Your task to perform on an android device: Open Yahoo.com Image 0: 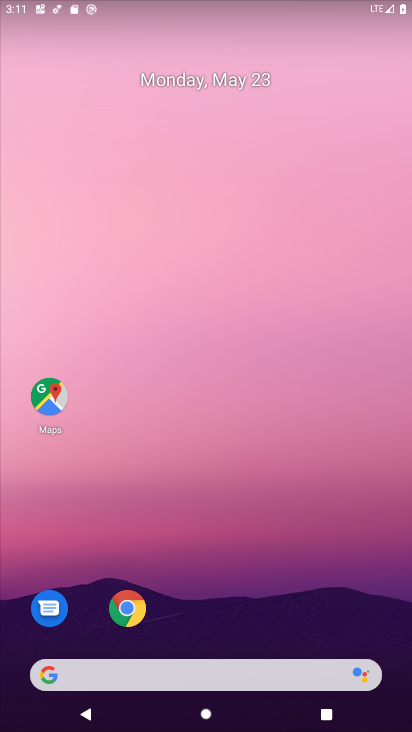
Step 0: click (132, 618)
Your task to perform on an android device: Open Yahoo.com Image 1: 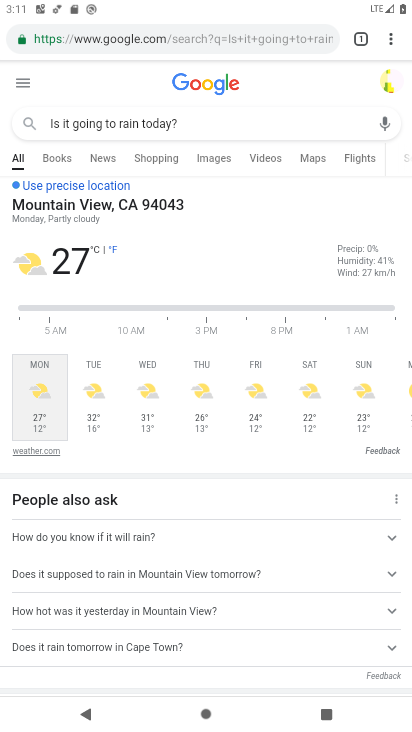
Step 1: click (275, 38)
Your task to perform on an android device: Open Yahoo.com Image 2: 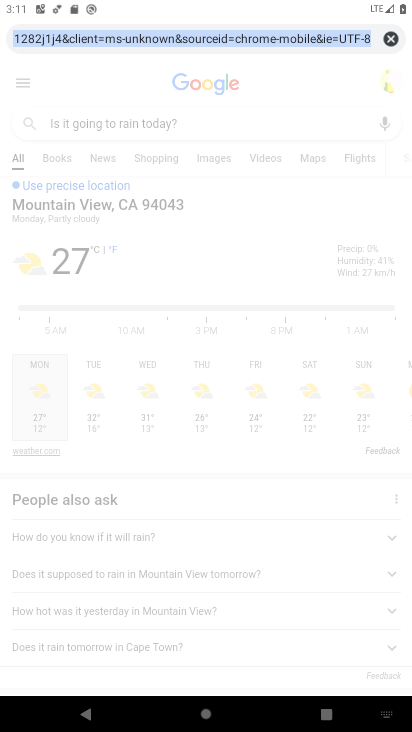
Step 2: type "yahoo.com"
Your task to perform on an android device: Open Yahoo.com Image 3: 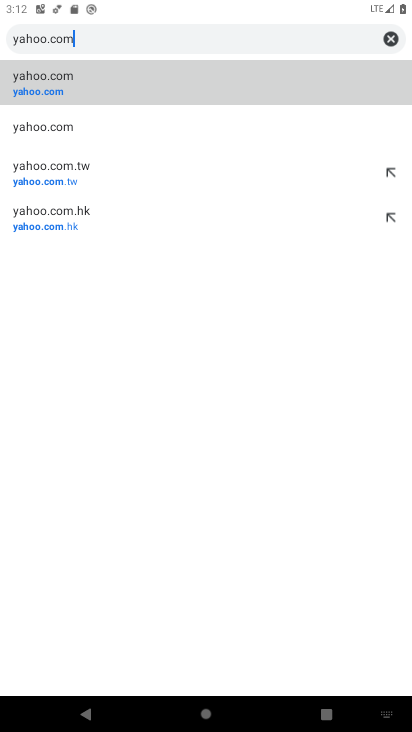
Step 3: click (46, 87)
Your task to perform on an android device: Open Yahoo.com Image 4: 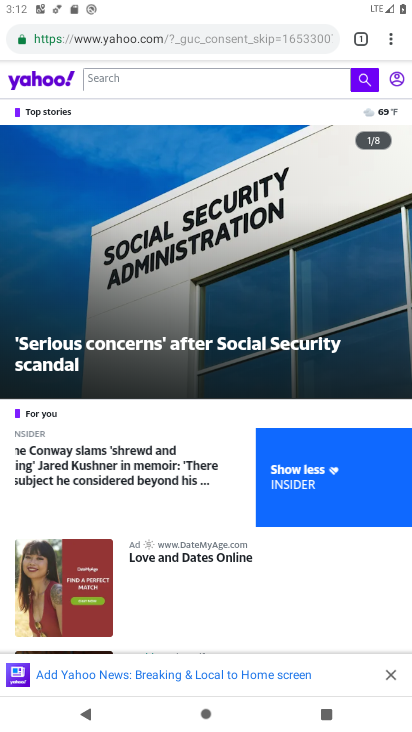
Step 4: task complete